Your task to perform on an android device: Open calendar and show me the first week of next month Image 0: 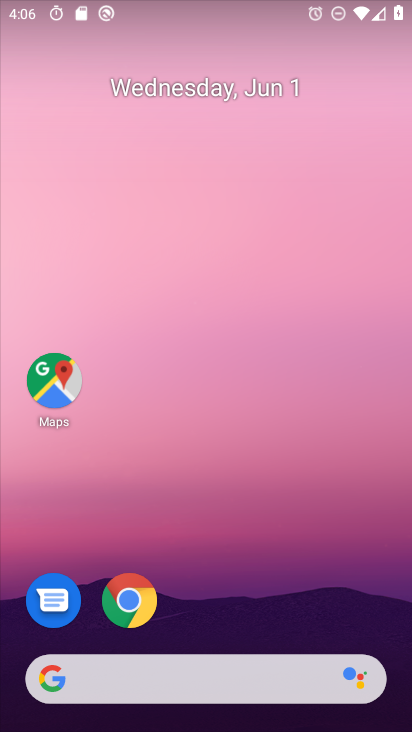
Step 0: drag from (213, 617) to (200, 217)
Your task to perform on an android device: Open calendar and show me the first week of next month Image 1: 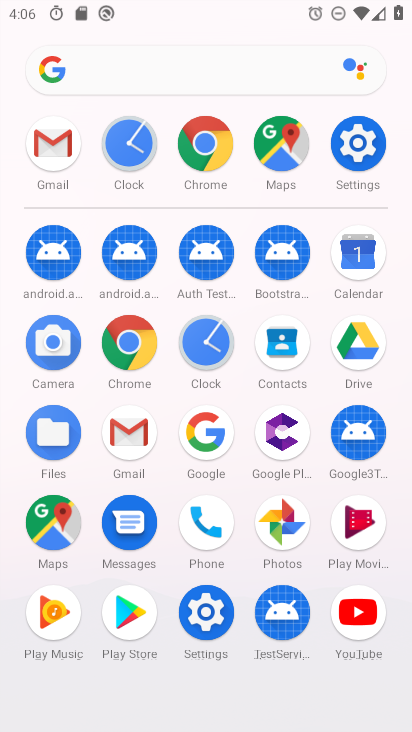
Step 1: click (369, 280)
Your task to perform on an android device: Open calendar and show me the first week of next month Image 2: 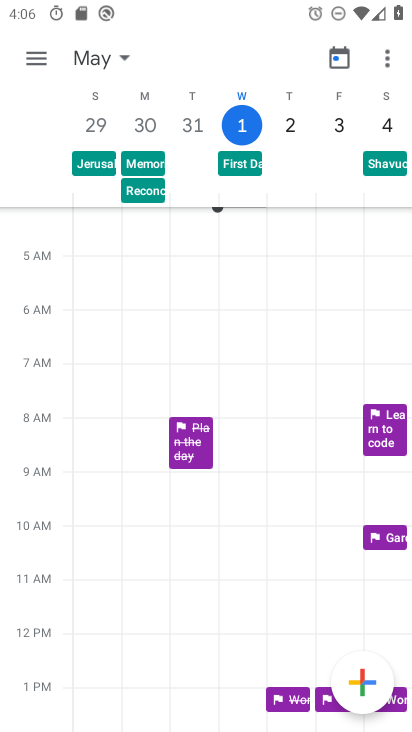
Step 2: click (35, 58)
Your task to perform on an android device: Open calendar and show me the first week of next month Image 3: 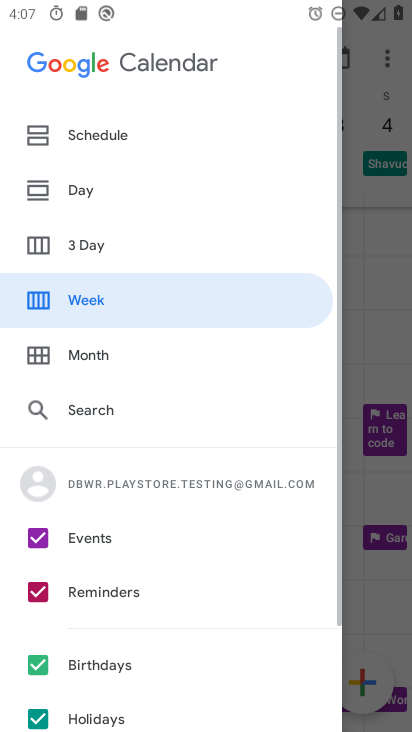
Step 3: click (104, 300)
Your task to perform on an android device: Open calendar and show me the first week of next month Image 4: 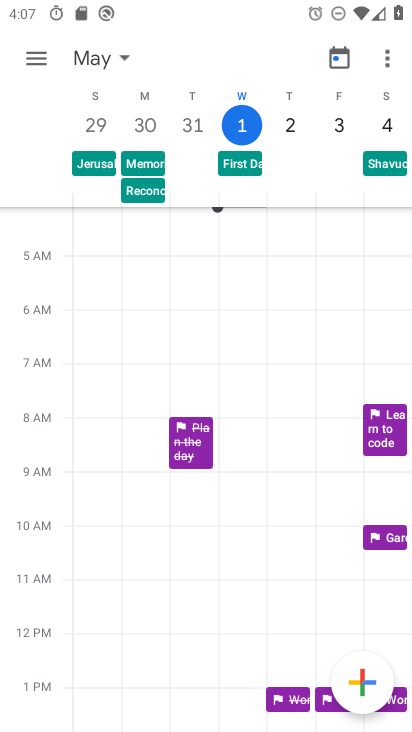
Step 4: click (98, 57)
Your task to perform on an android device: Open calendar and show me the first week of next month Image 5: 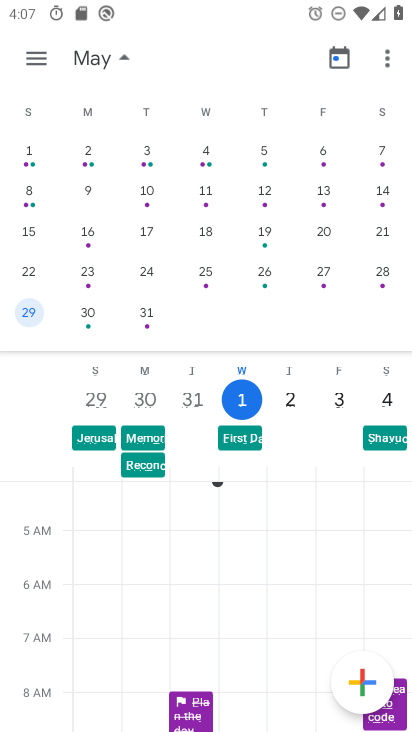
Step 5: drag from (353, 219) to (9, 207)
Your task to perform on an android device: Open calendar and show me the first week of next month Image 6: 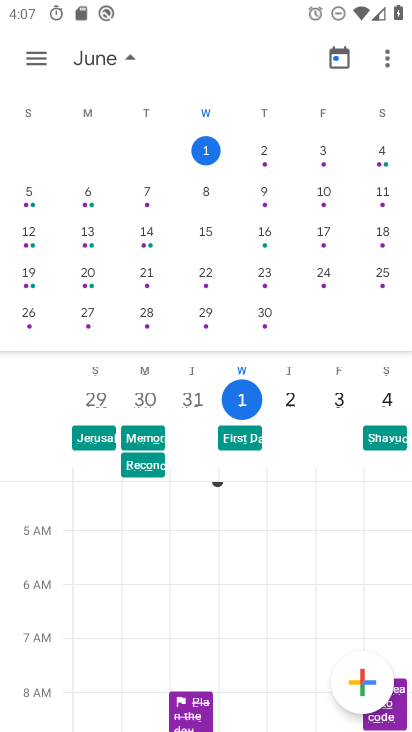
Step 6: drag from (332, 231) to (5, 221)
Your task to perform on an android device: Open calendar and show me the first week of next month Image 7: 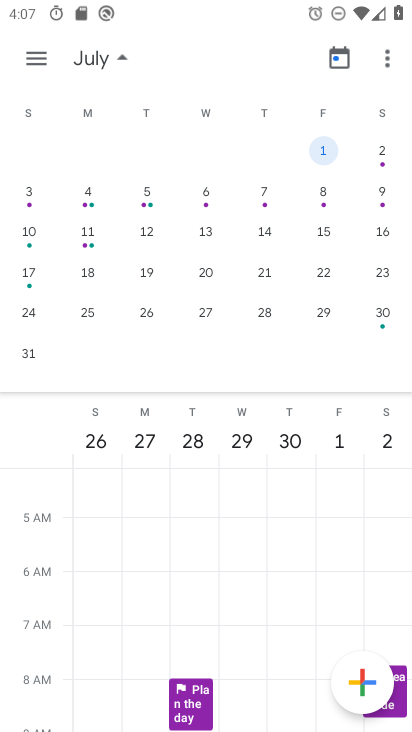
Step 7: click (30, 197)
Your task to perform on an android device: Open calendar and show me the first week of next month Image 8: 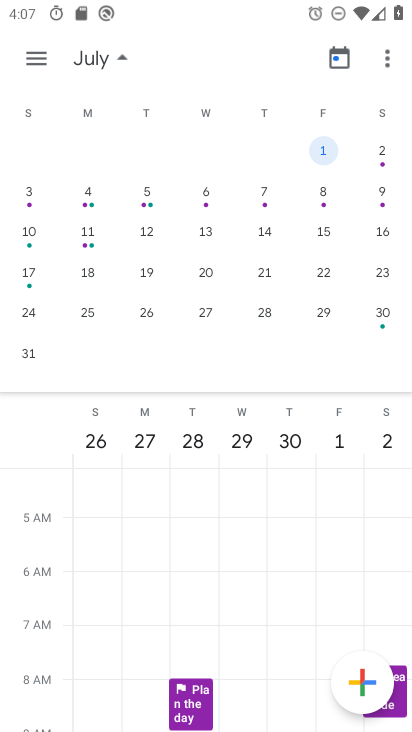
Step 8: click (30, 197)
Your task to perform on an android device: Open calendar and show me the first week of next month Image 9: 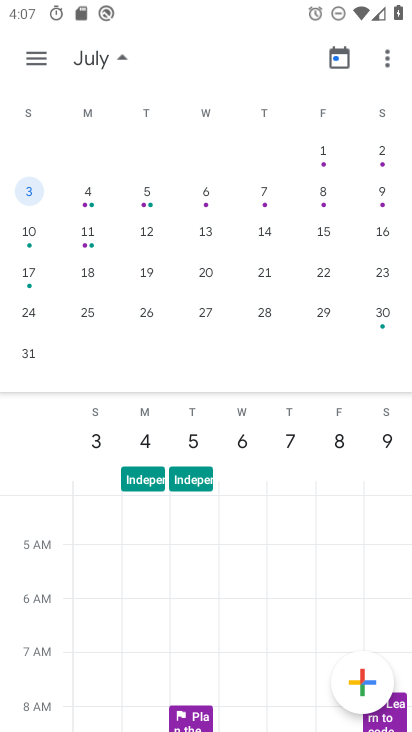
Step 9: task complete